Your task to perform on an android device: open app "AliExpress" Image 0: 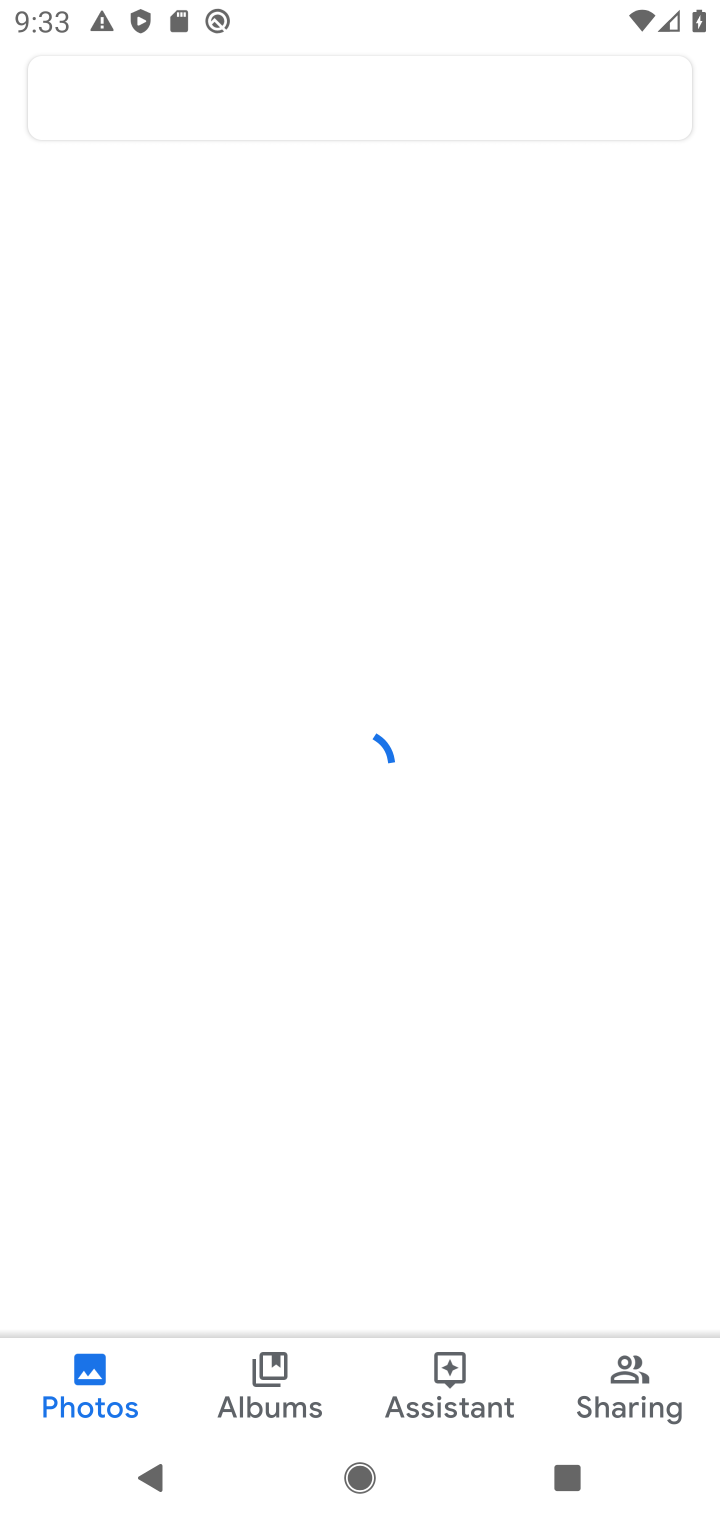
Step 0: press home button
Your task to perform on an android device: open app "AliExpress" Image 1: 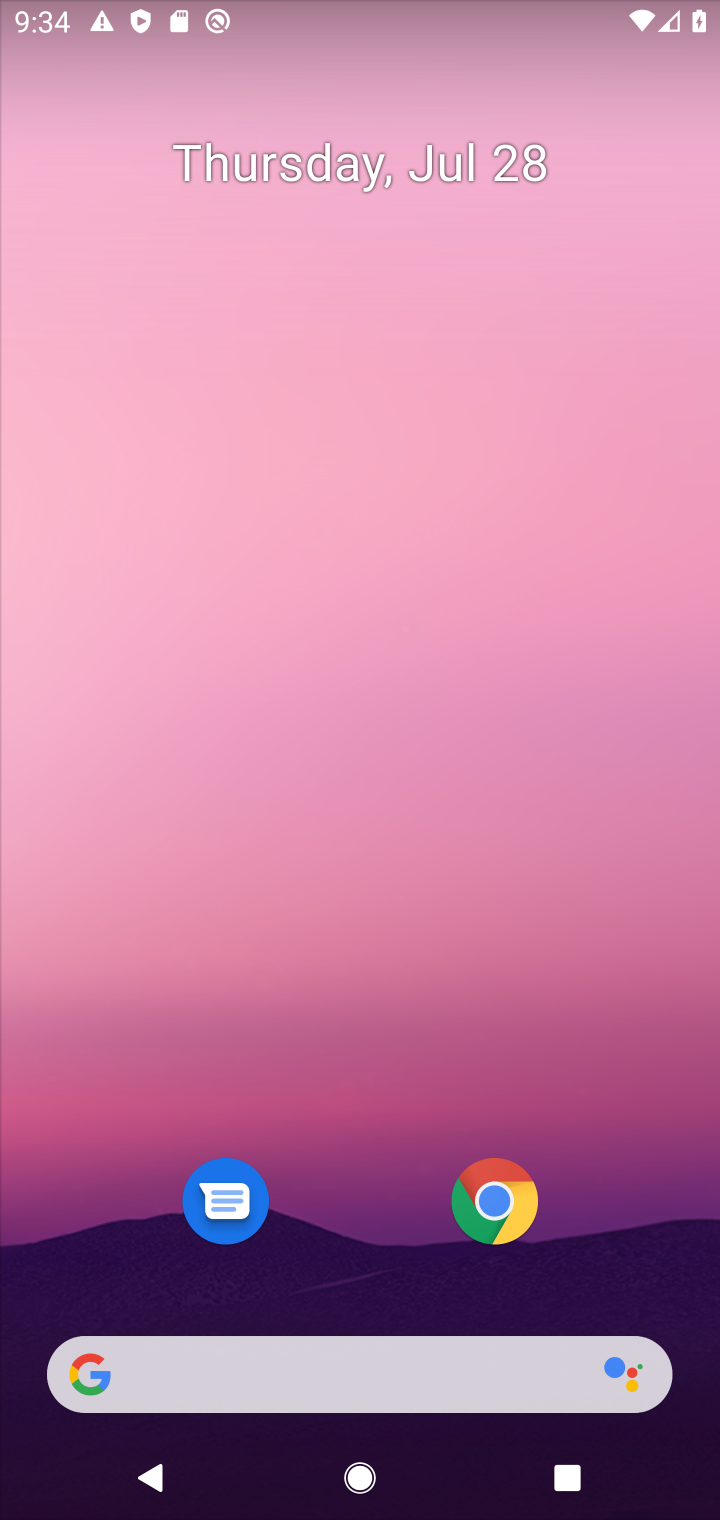
Step 1: drag from (300, 1257) to (388, 72)
Your task to perform on an android device: open app "AliExpress" Image 2: 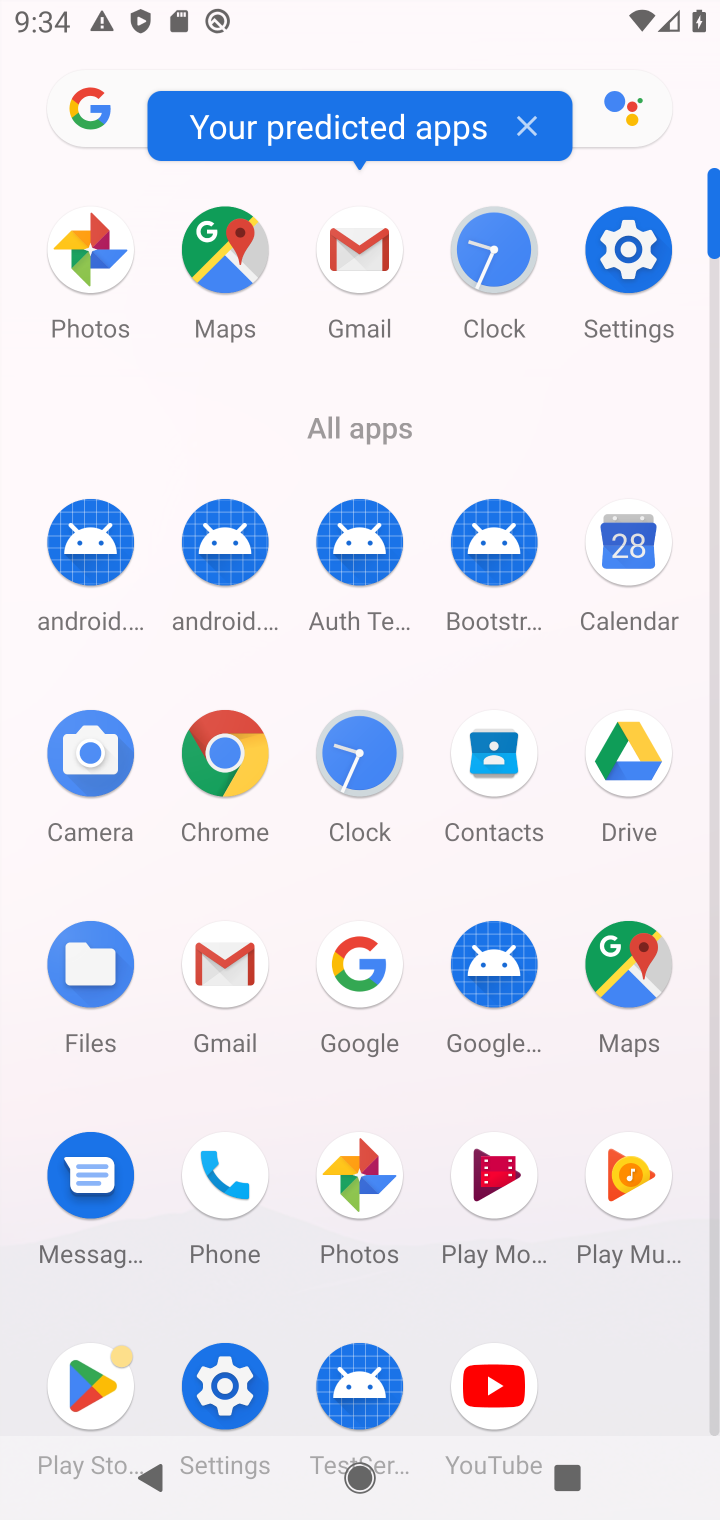
Step 2: click (86, 1391)
Your task to perform on an android device: open app "AliExpress" Image 3: 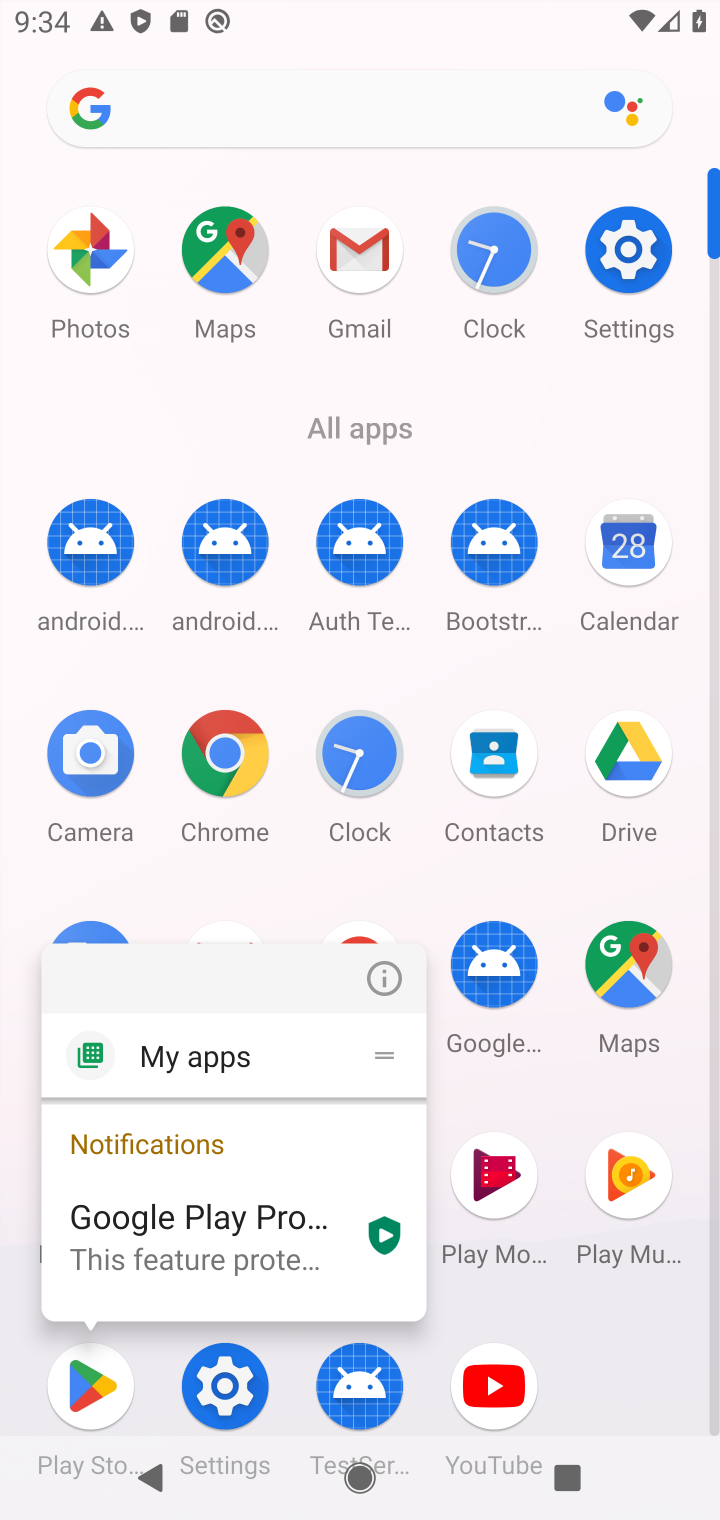
Step 3: click (103, 1398)
Your task to perform on an android device: open app "AliExpress" Image 4: 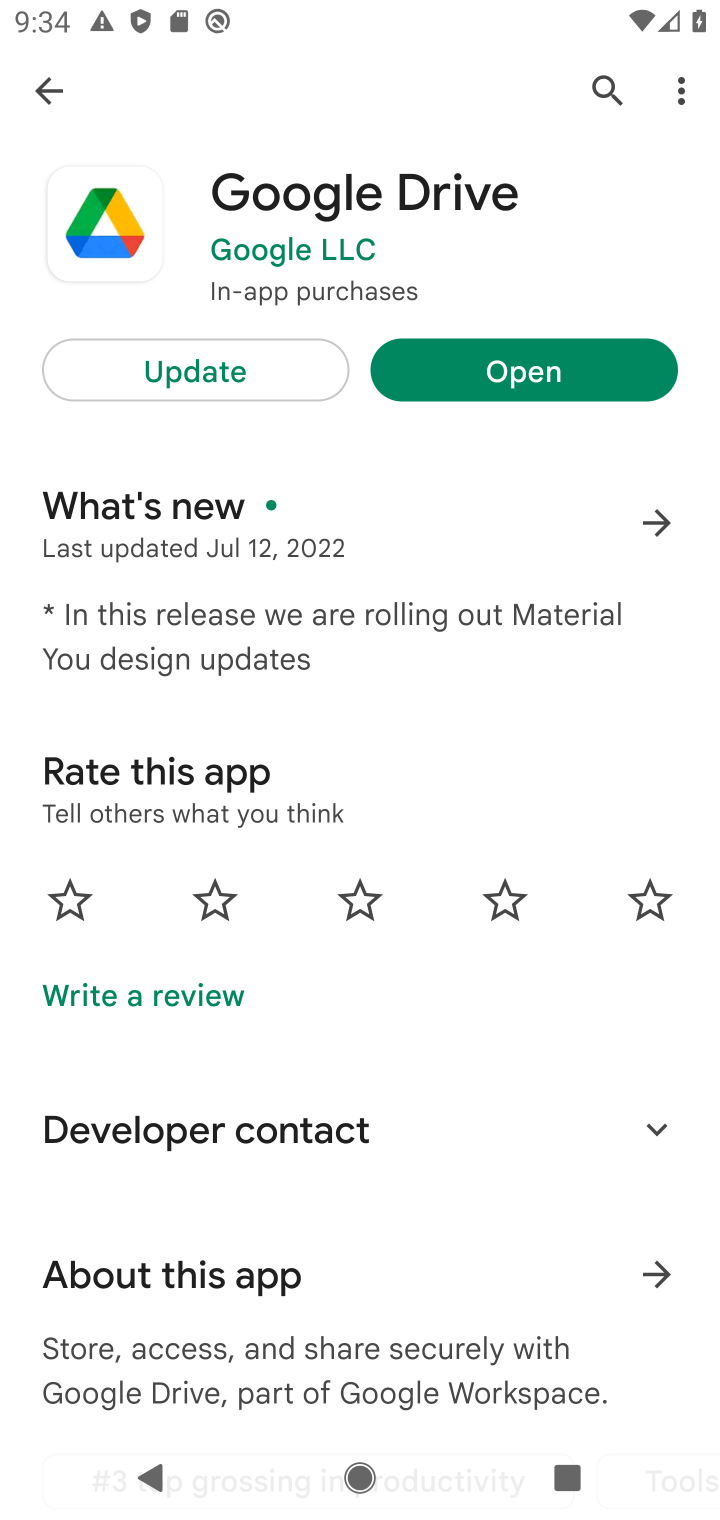
Step 4: click (54, 107)
Your task to perform on an android device: open app "AliExpress" Image 5: 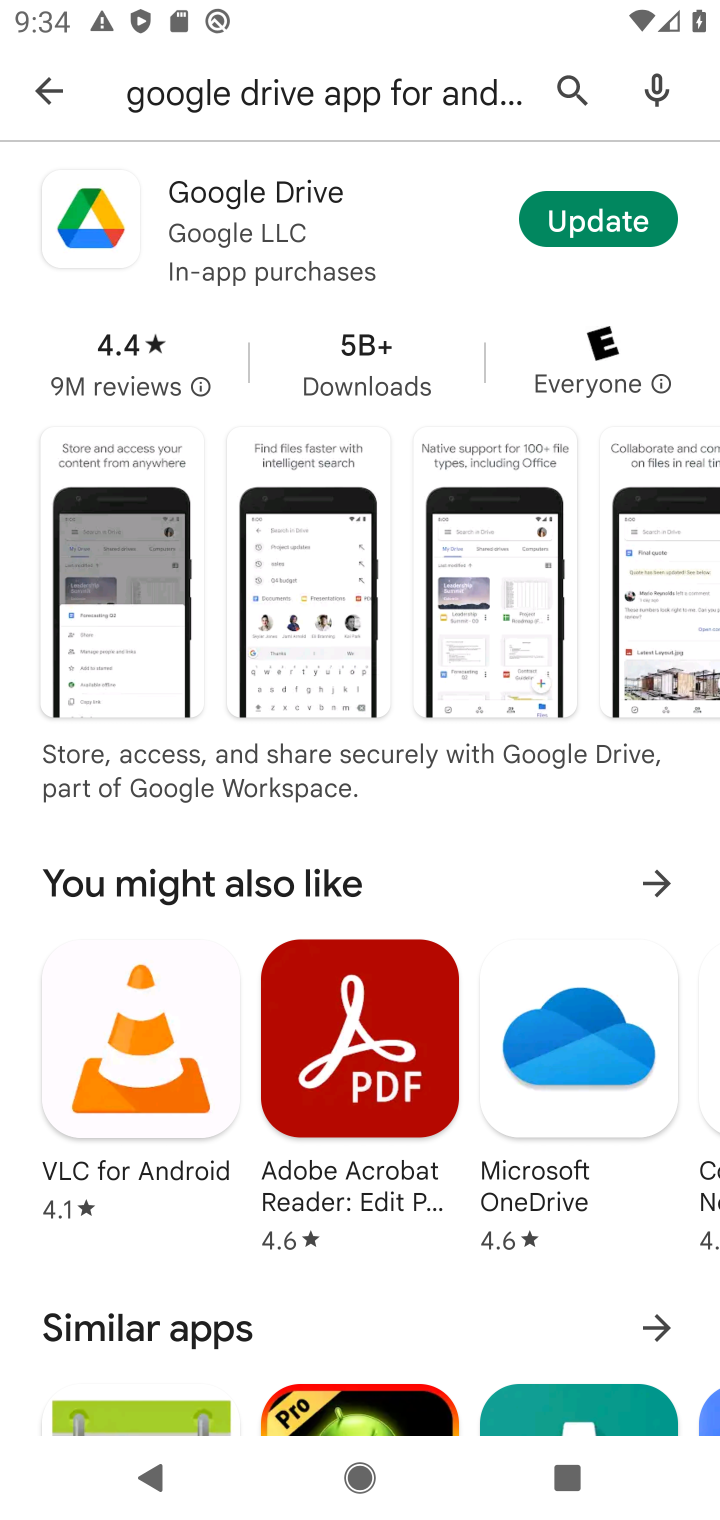
Step 5: click (282, 78)
Your task to perform on an android device: open app "AliExpress" Image 6: 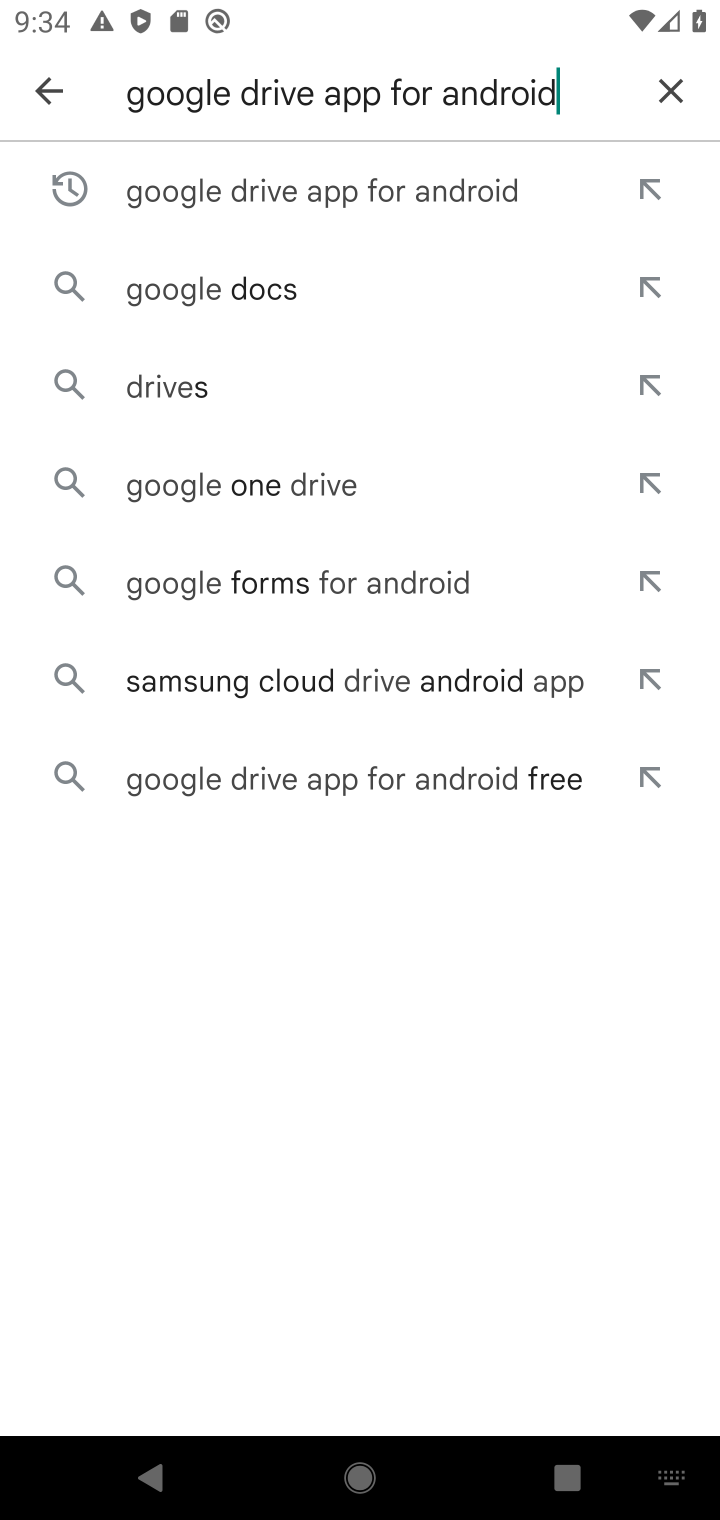
Step 6: click (665, 95)
Your task to perform on an android device: open app "AliExpress" Image 7: 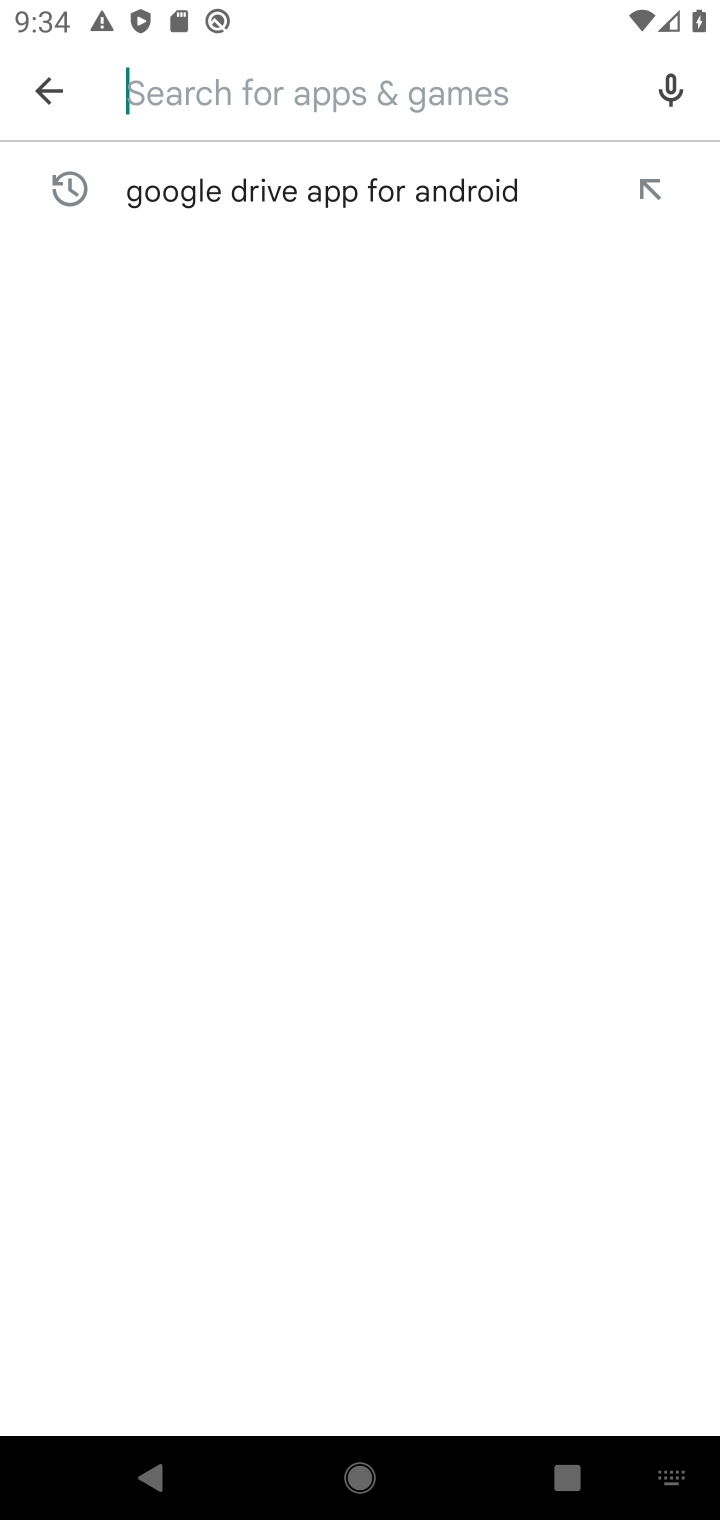
Step 7: type "ALiExpress"
Your task to perform on an android device: open app "AliExpress" Image 8: 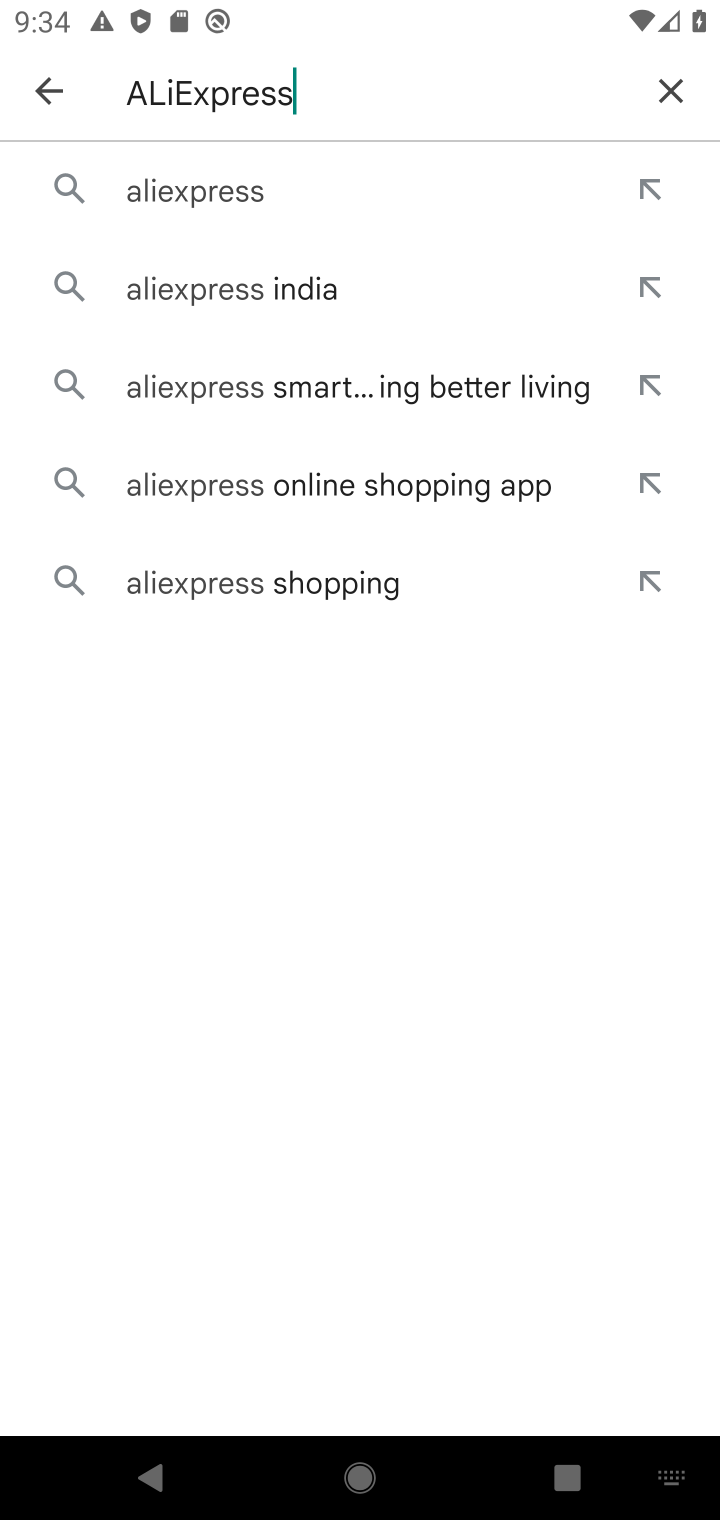
Step 8: click (260, 197)
Your task to perform on an android device: open app "AliExpress" Image 9: 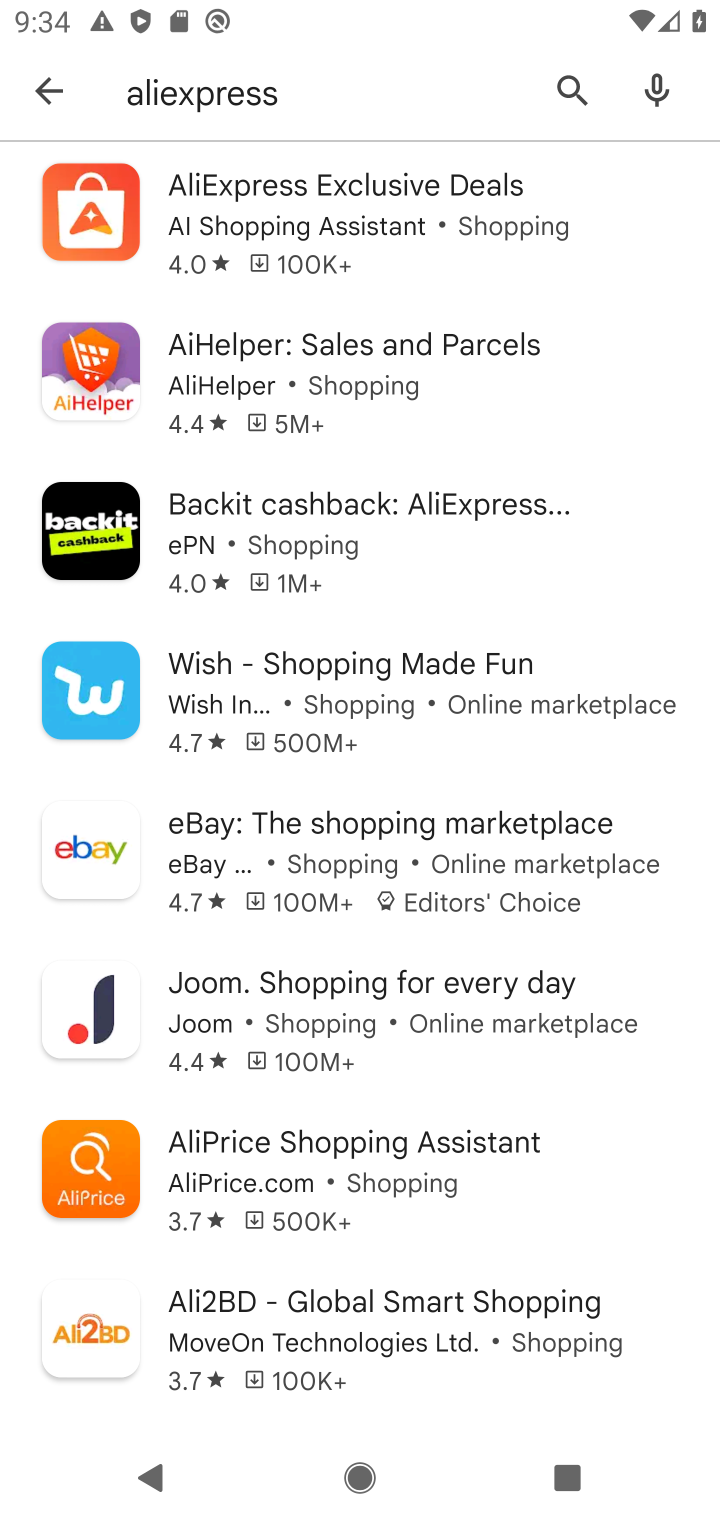
Step 9: click (334, 192)
Your task to perform on an android device: open app "AliExpress" Image 10: 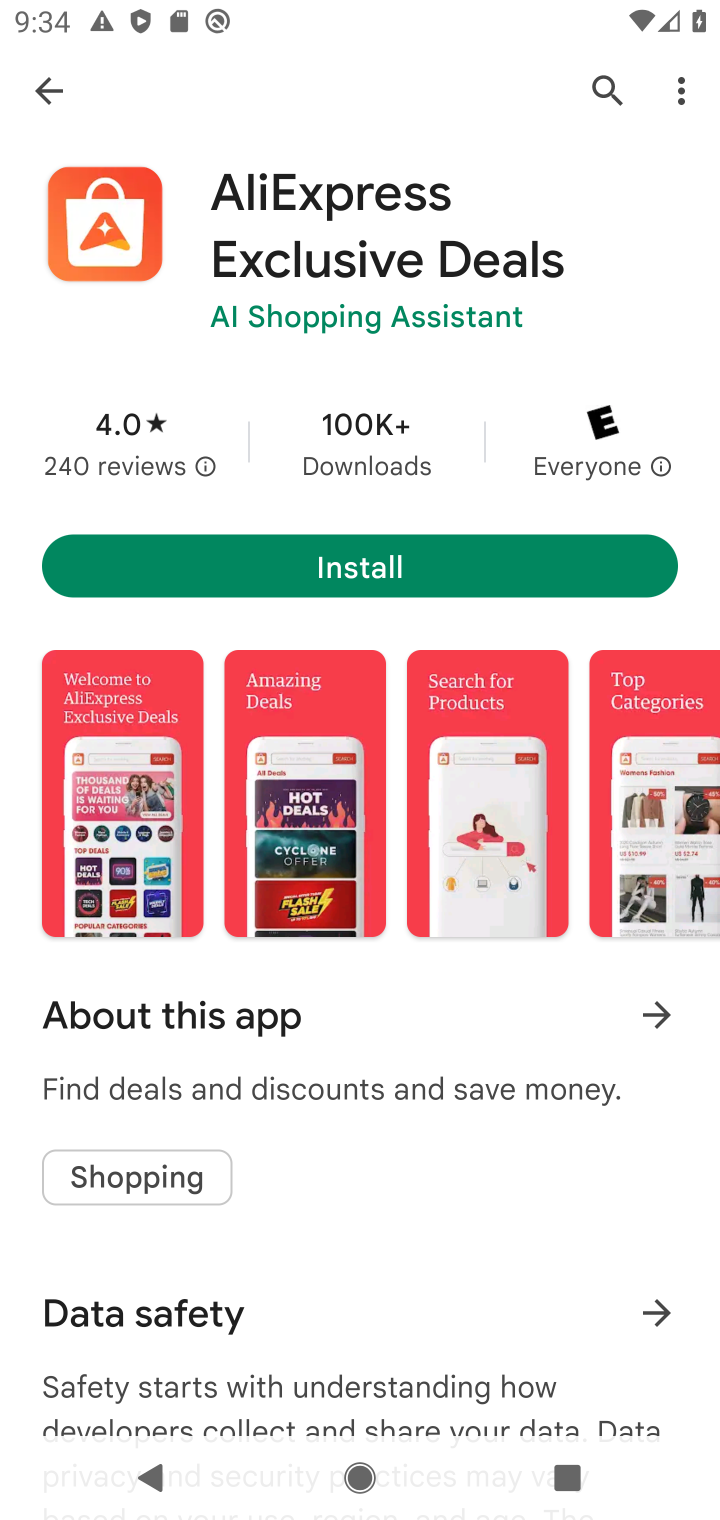
Step 10: task complete